Your task to perform on an android device: Show me recent news Image 0: 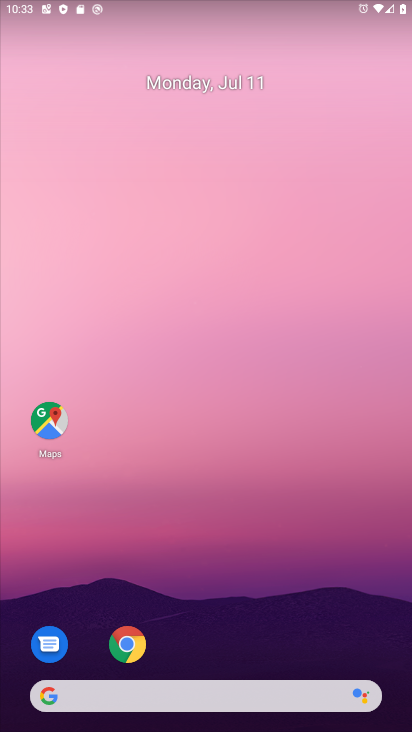
Step 0: press home button
Your task to perform on an android device: Show me recent news Image 1: 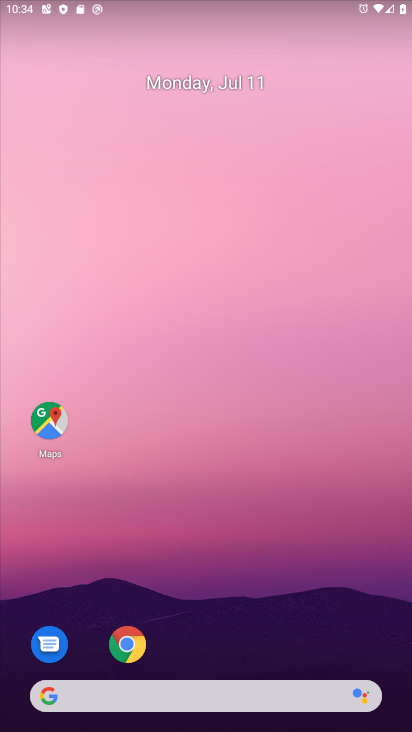
Step 1: task complete